Your task to perform on an android device: toggle translation in the chrome app Image 0: 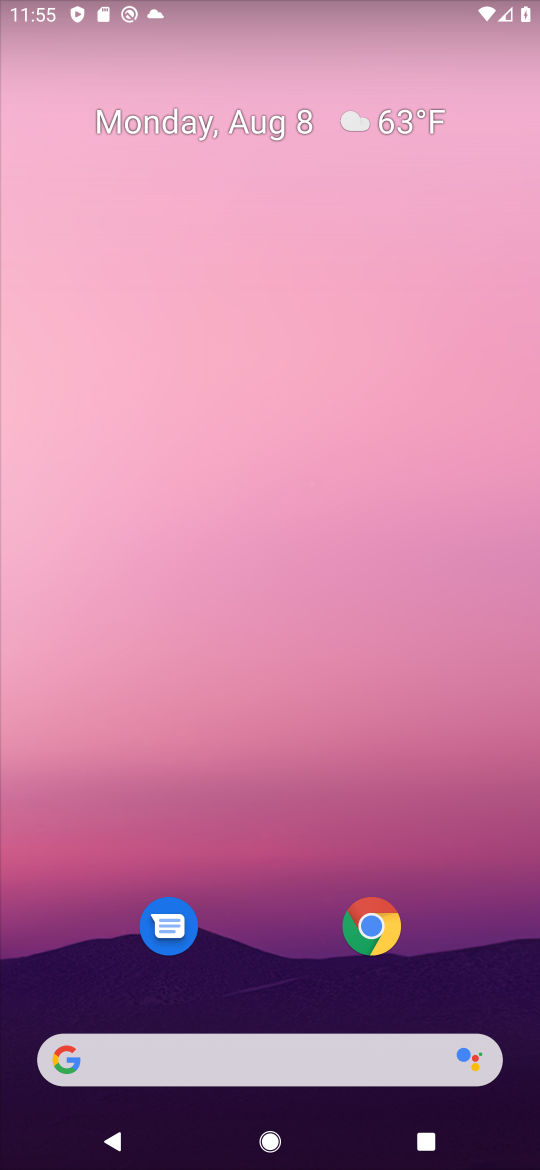
Step 0: click (366, 920)
Your task to perform on an android device: toggle translation in the chrome app Image 1: 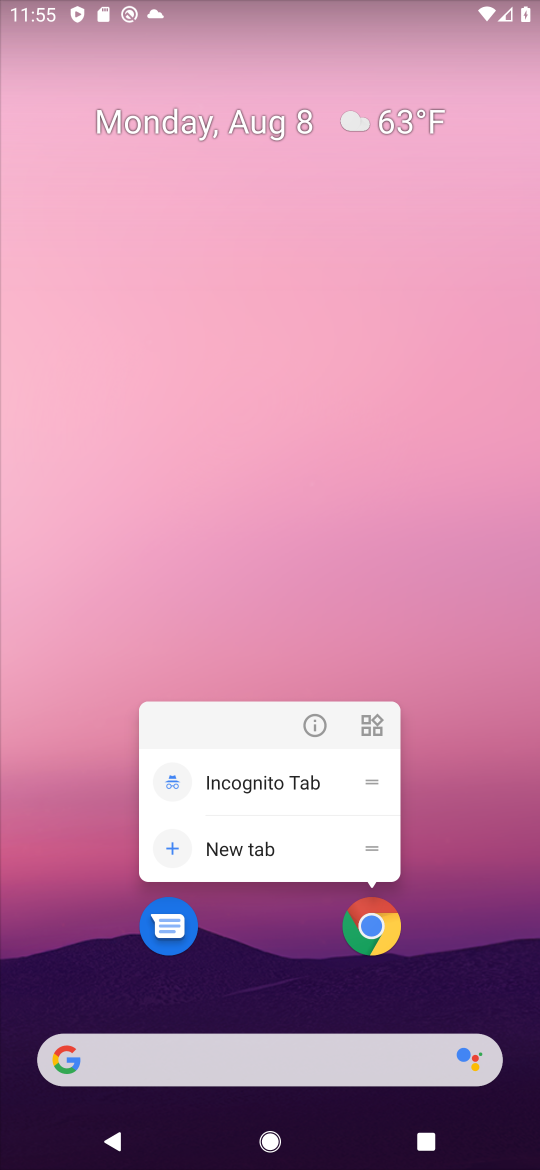
Step 1: click (366, 920)
Your task to perform on an android device: toggle translation in the chrome app Image 2: 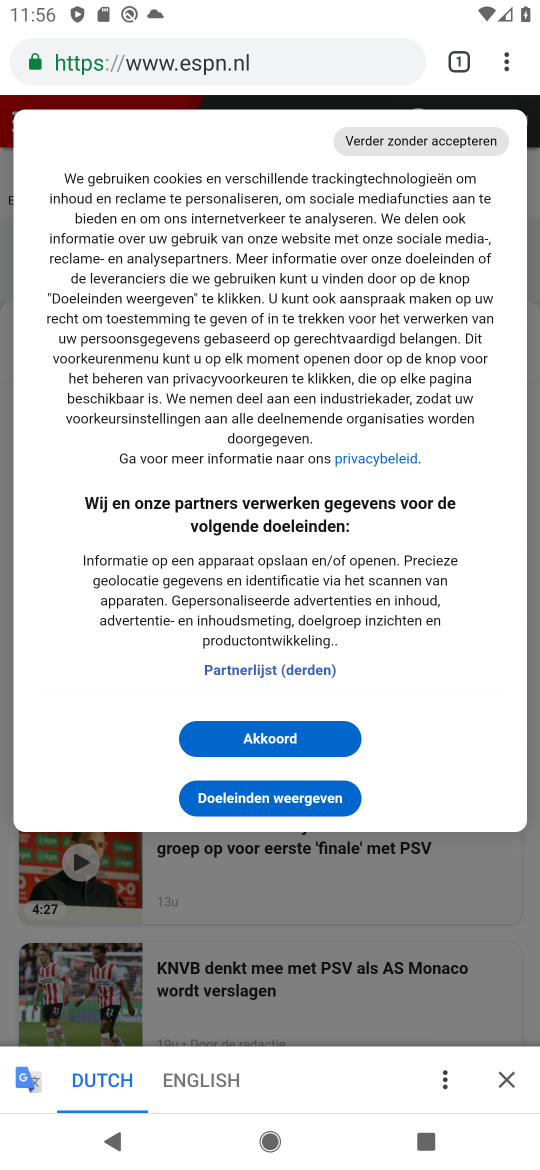
Step 2: click (509, 1076)
Your task to perform on an android device: toggle translation in the chrome app Image 3: 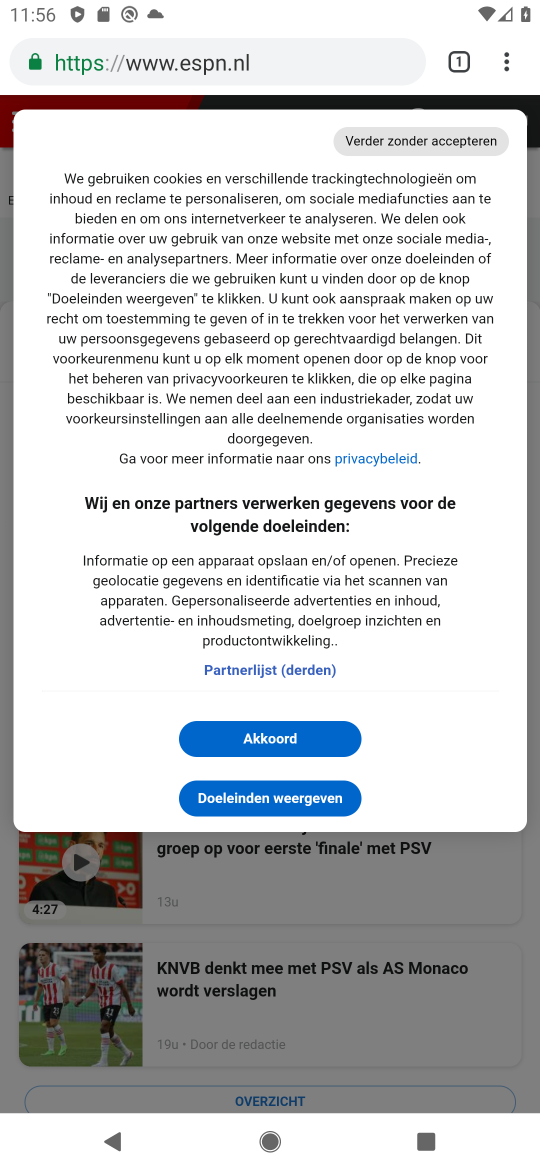
Step 3: press back button
Your task to perform on an android device: toggle translation in the chrome app Image 4: 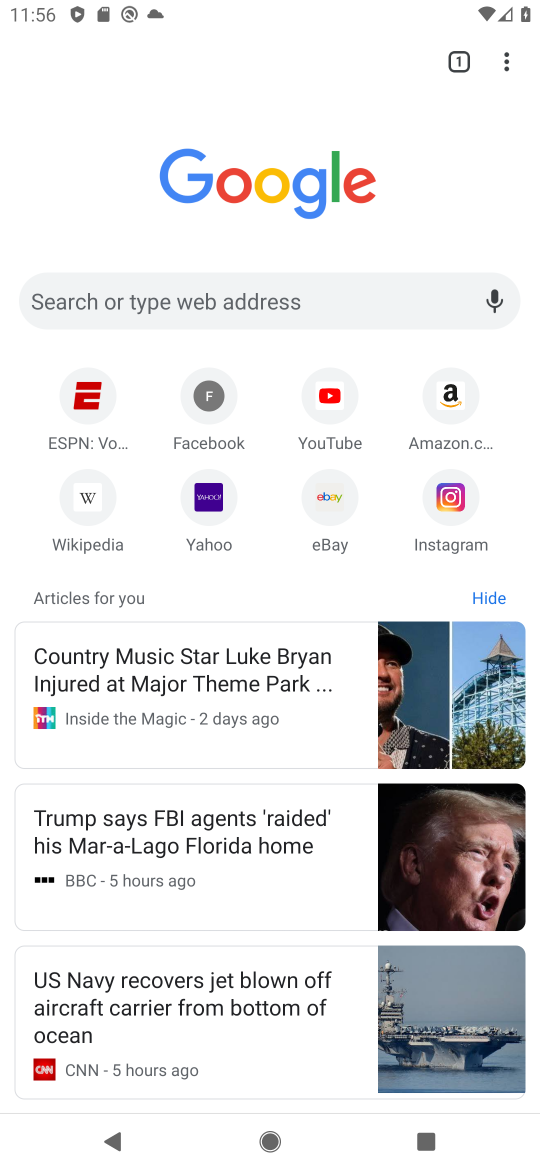
Step 4: click (508, 65)
Your task to perform on an android device: toggle translation in the chrome app Image 5: 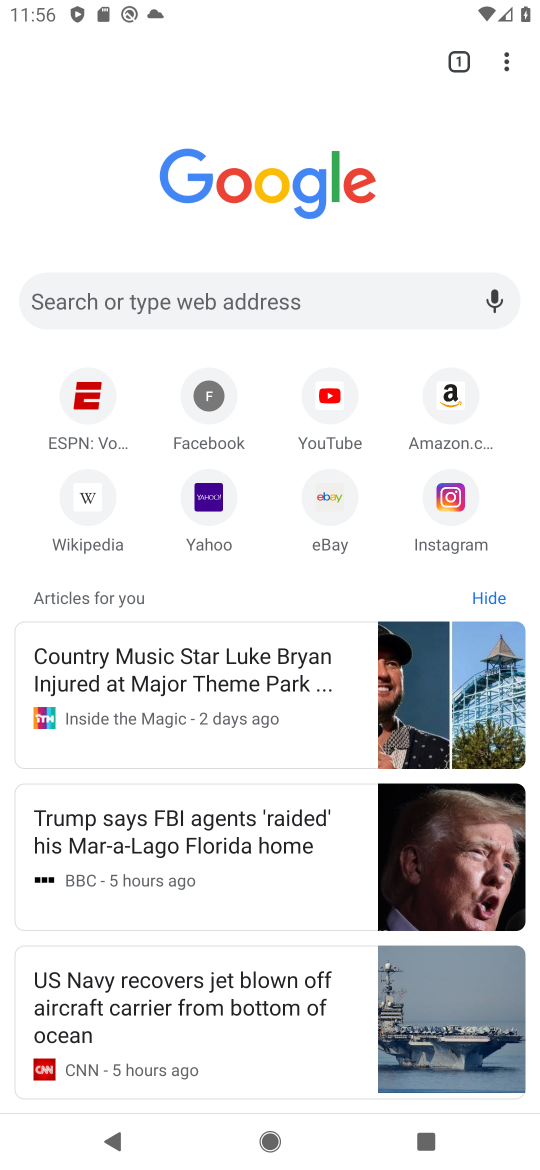
Step 5: click (505, 60)
Your task to perform on an android device: toggle translation in the chrome app Image 6: 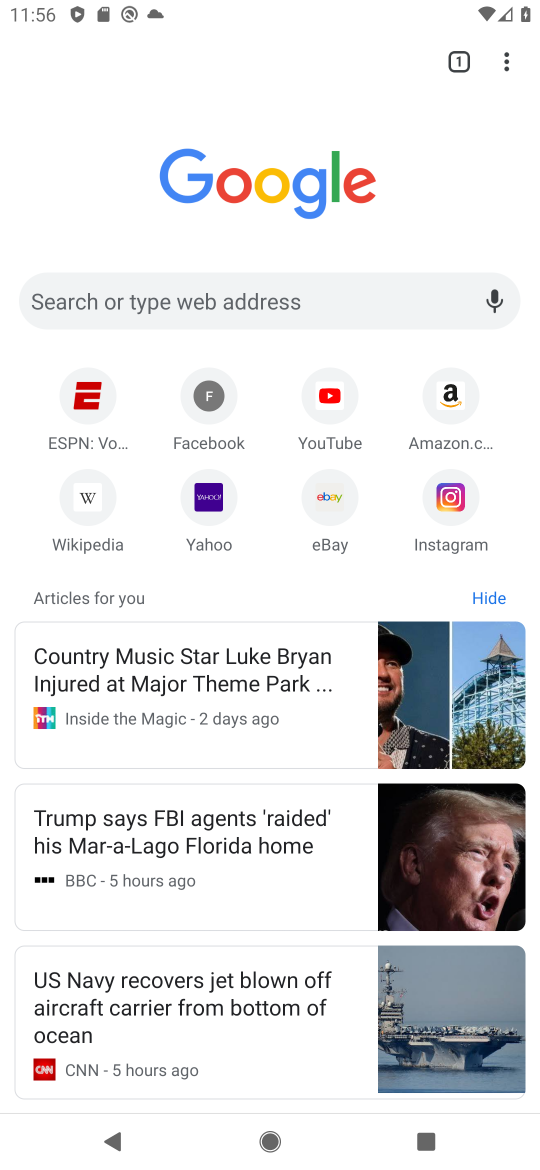
Step 6: click (505, 59)
Your task to perform on an android device: toggle translation in the chrome app Image 7: 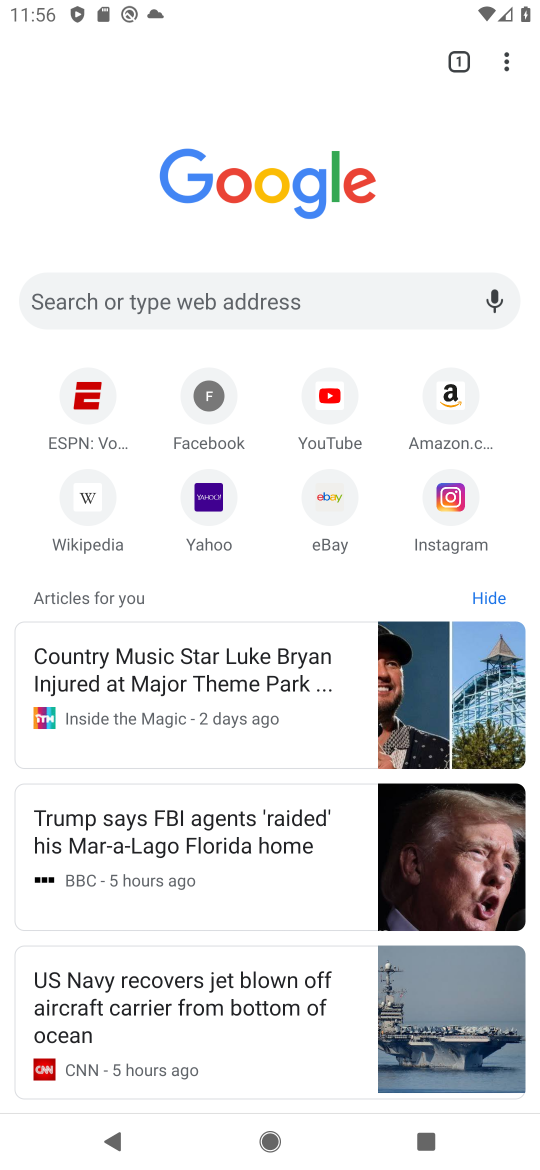
Step 7: click (508, 48)
Your task to perform on an android device: toggle translation in the chrome app Image 8: 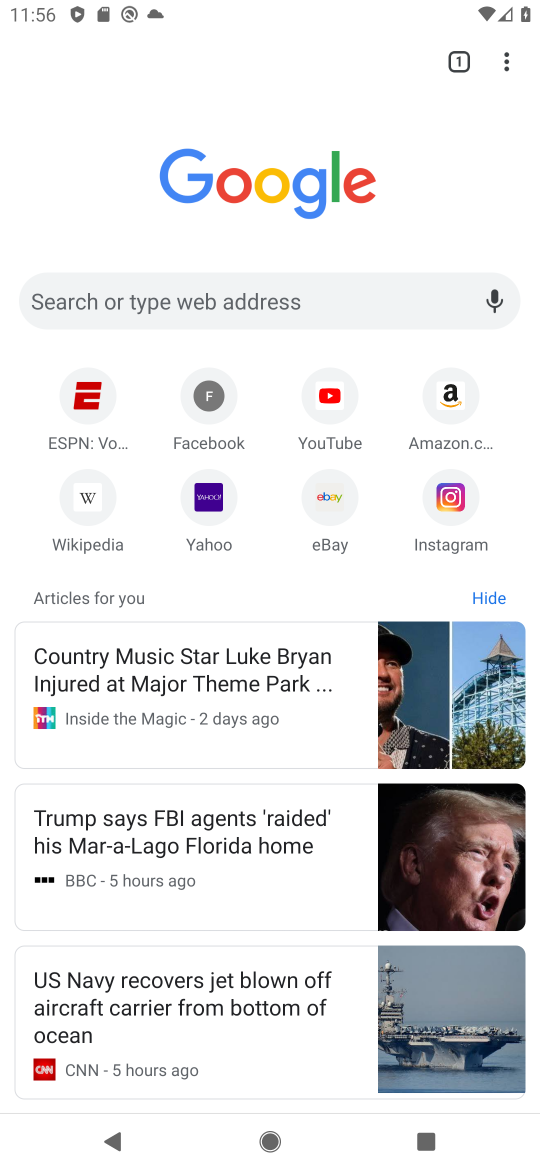
Step 8: click (502, 58)
Your task to perform on an android device: toggle translation in the chrome app Image 9: 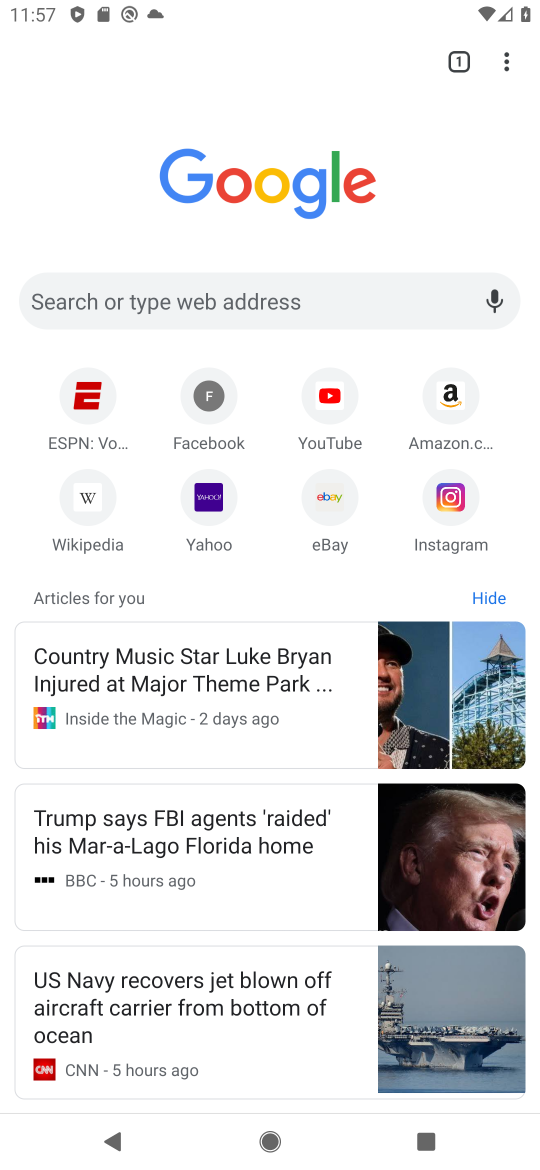
Step 9: click (506, 67)
Your task to perform on an android device: toggle translation in the chrome app Image 10: 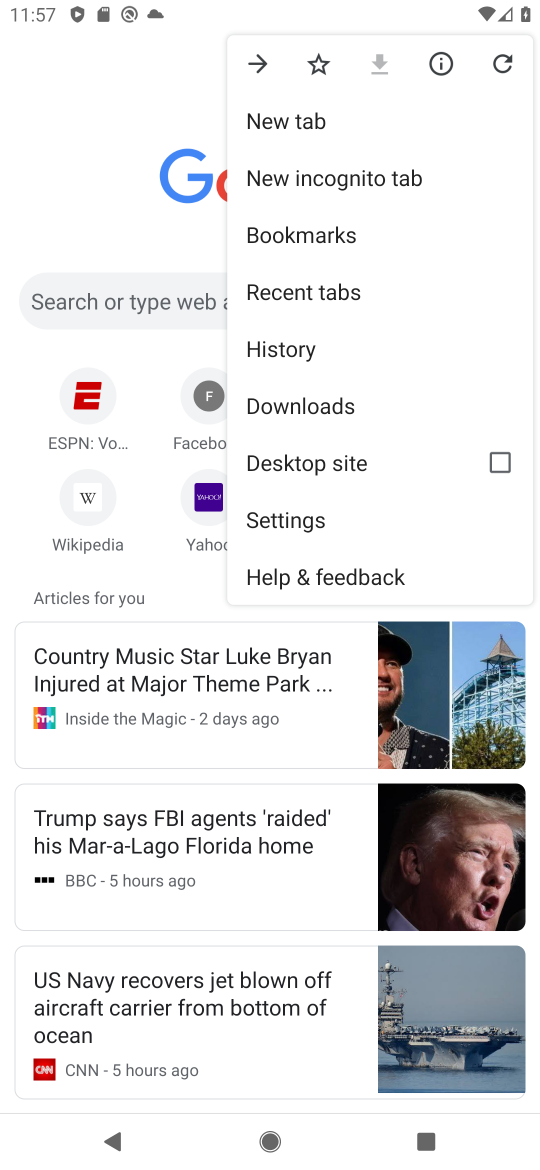
Step 10: click (329, 526)
Your task to perform on an android device: toggle translation in the chrome app Image 11: 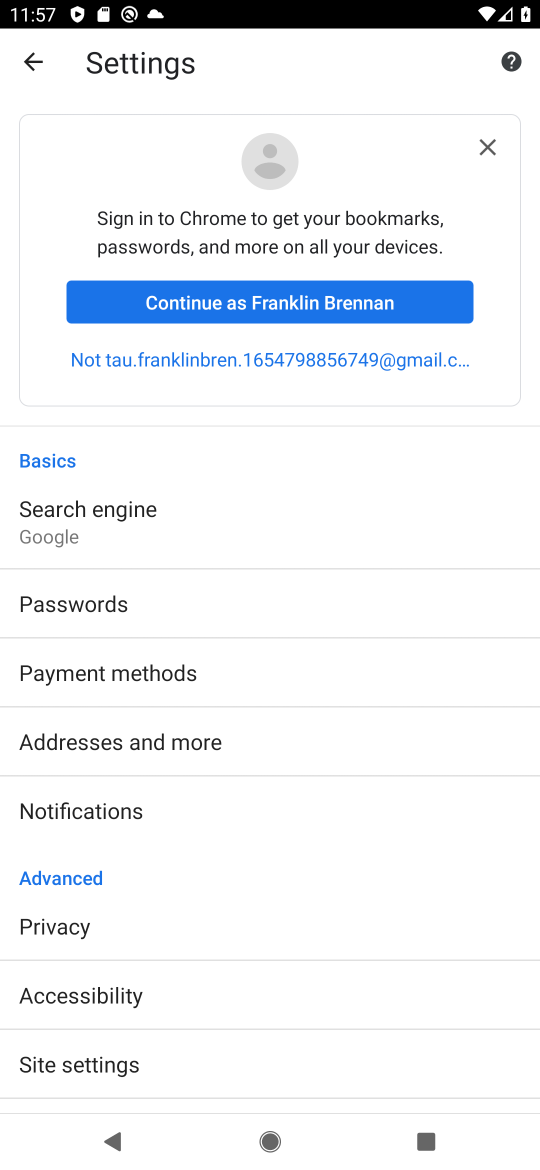
Step 11: drag from (10, 804) to (273, 316)
Your task to perform on an android device: toggle translation in the chrome app Image 12: 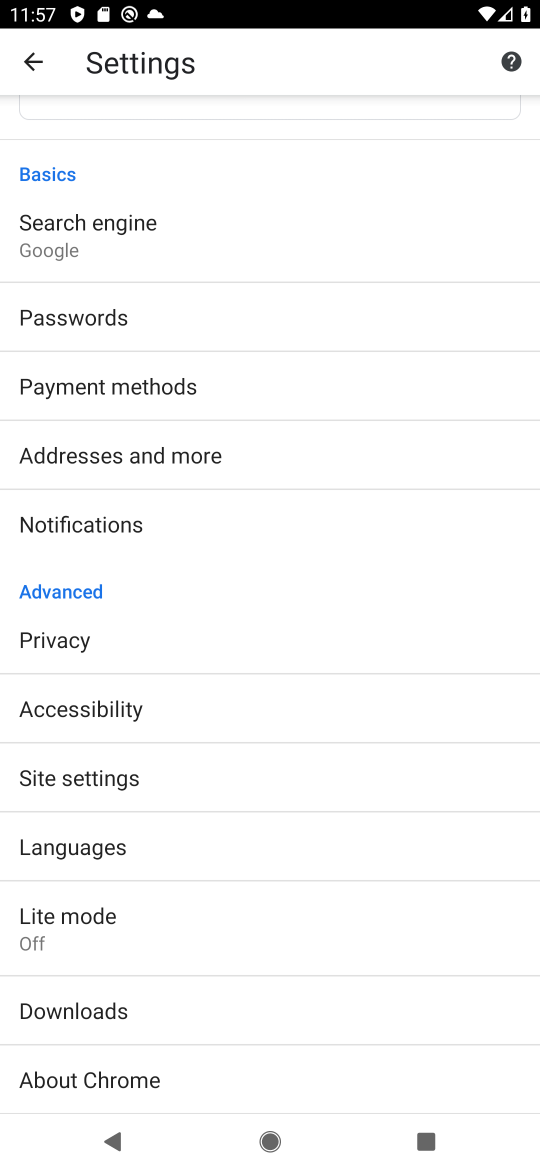
Step 12: click (72, 848)
Your task to perform on an android device: toggle translation in the chrome app Image 13: 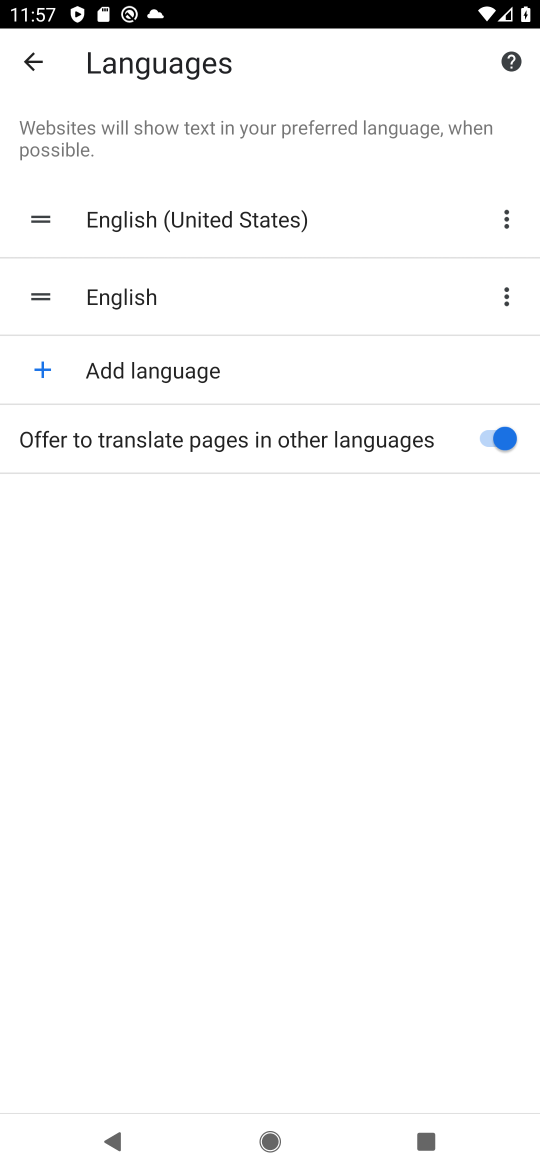
Step 13: click (505, 443)
Your task to perform on an android device: toggle translation in the chrome app Image 14: 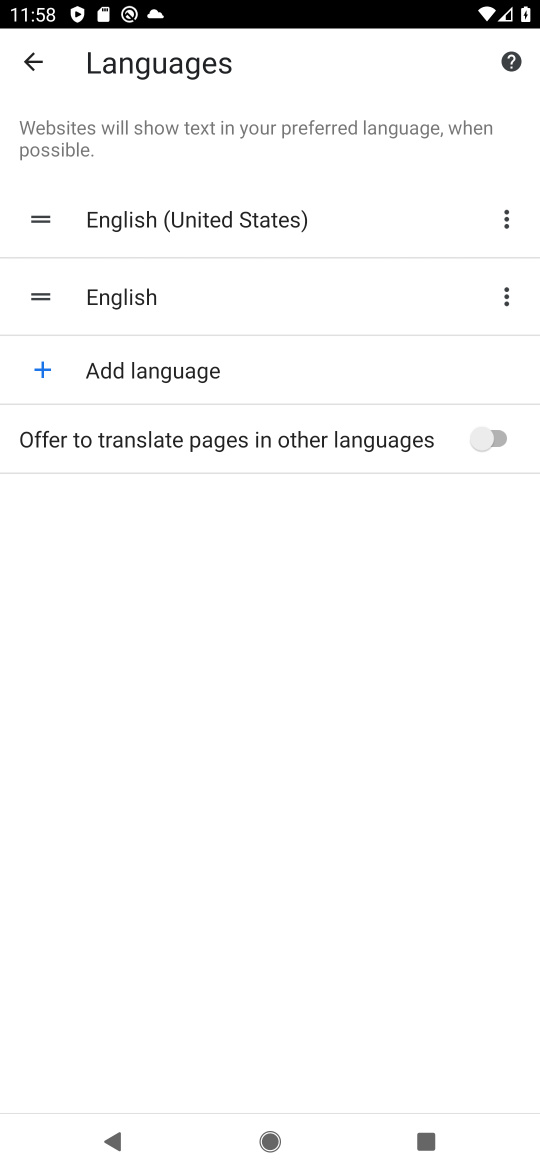
Step 14: task complete